Your task to perform on an android device: Clear the shopping cart on bestbuy. Search for asus rog on bestbuy, select the first entry, and add it to the cart. Image 0: 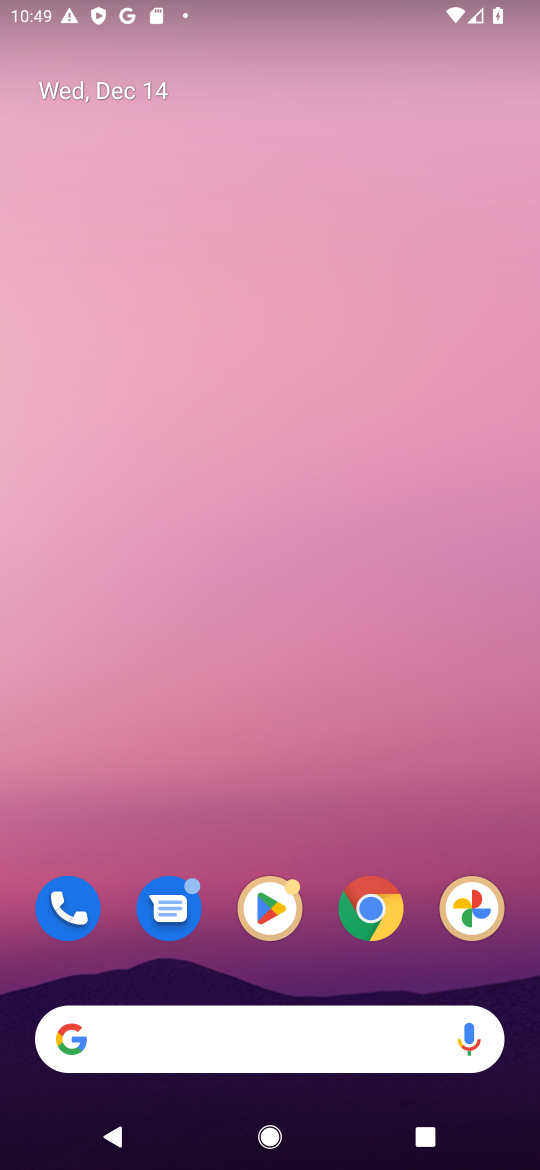
Step 0: click (364, 939)
Your task to perform on an android device: Clear the shopping cart on bestbuy. Search for asus rog on bestbuy, select the first entry, and add it to the cart. Image 1: 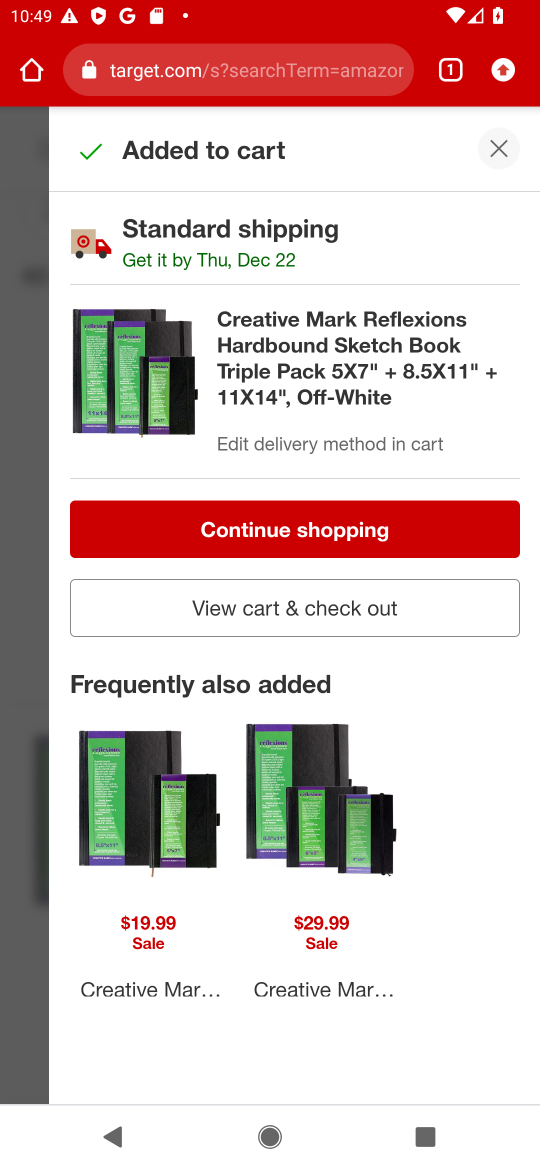
Step 1: click (198, 62)
Your task to perform on an android device: Clear the shopping cart on bestbuy. Search for asus rog on bestbuy, select the first entry, and add it to the cart. Image 2: 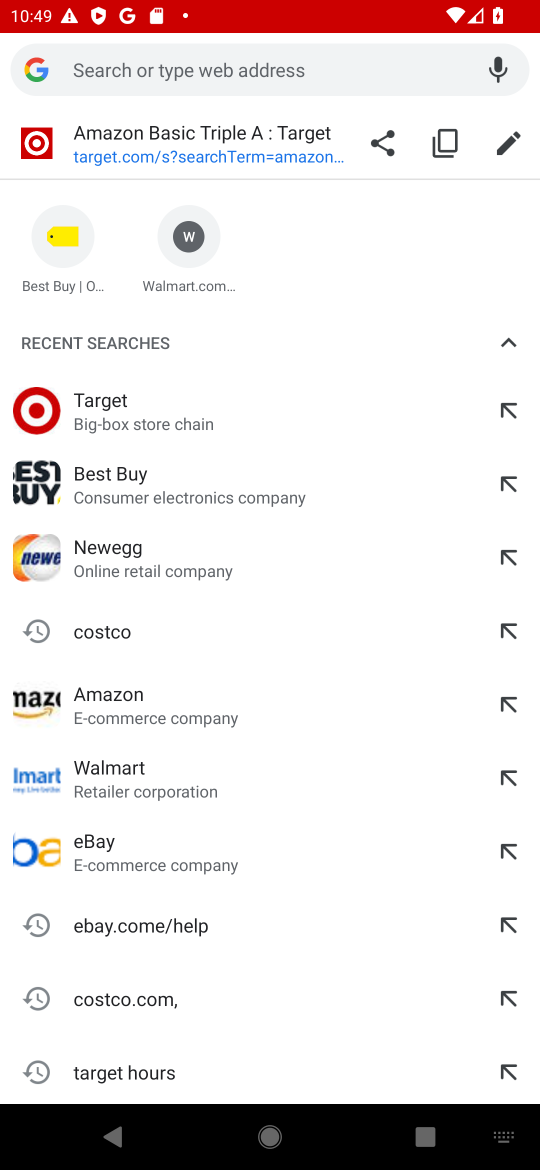
Step 2: type "bestbuy"
Your task to perform on an android device: Clear the shopping cart on bestbuy. Search for asus rog on bestbuy, select the first entry, and add it to the cart. Image 3: 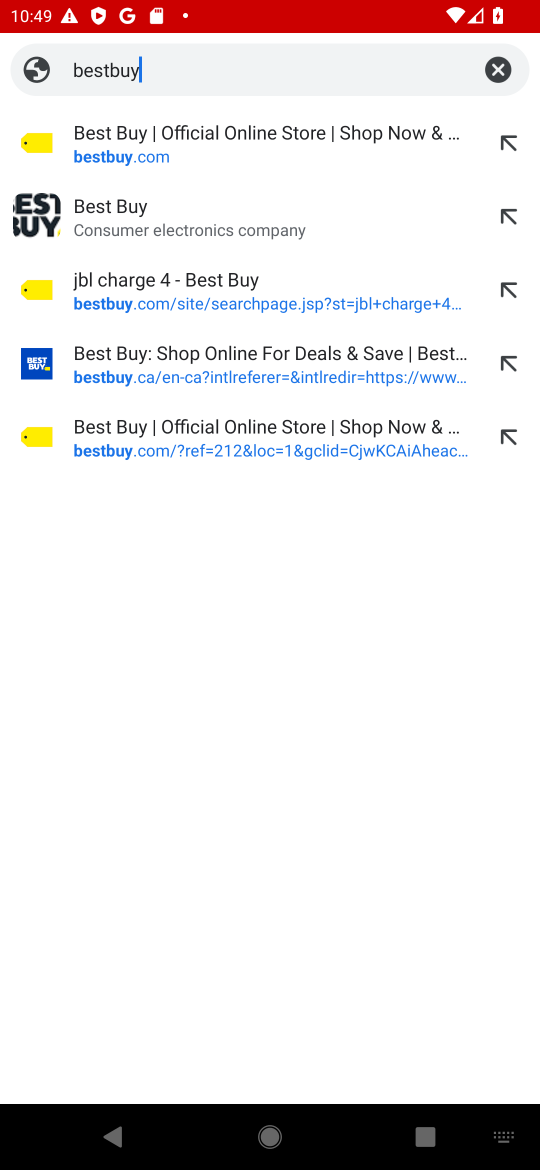
Step 3: click (143, 176)
Your task to perform on an android device: Clear the shopping cart on bestbuy. Search for asus rog on bestbuy, select the first entry, and add it to the cart. Image 4: 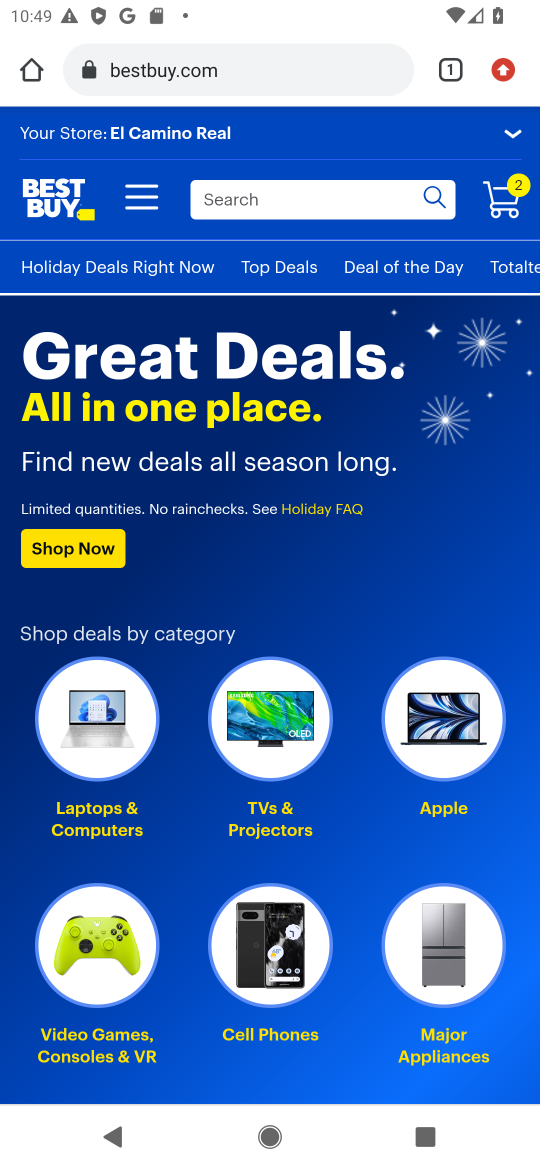
Step 4: click (287, 204)
Your task to perform on an android device: Clear the shopping cart on bestbuy. Search for asus rog on bestbuy, select the first entry, and add it to the cart. Image 5: 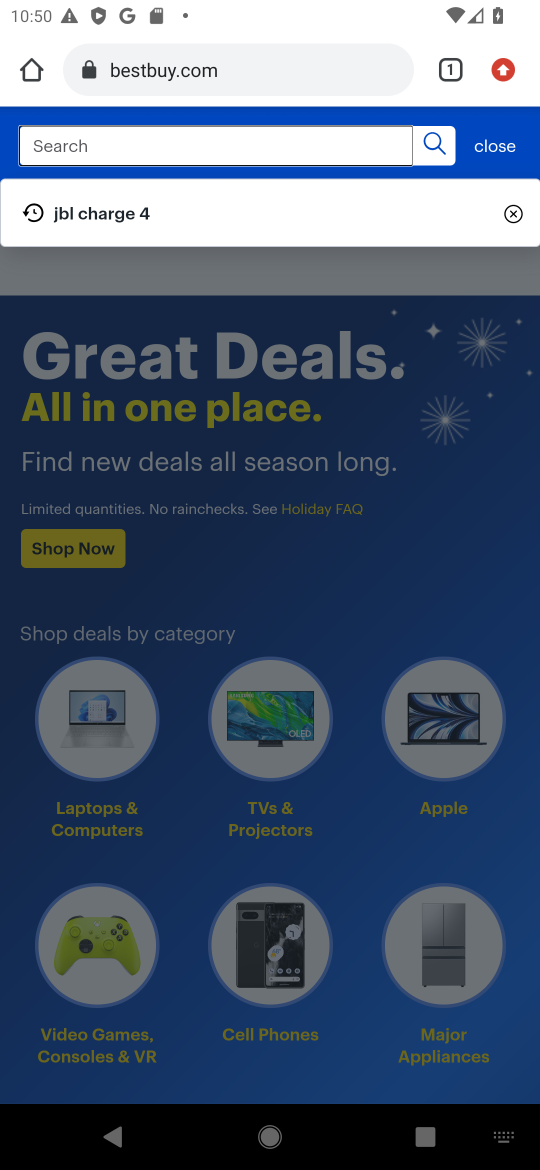
Step 5: type "asus rog "
Your task to perform on an android device: Clear the shopping cart on bestbuy. Search for asus rog on bestbuy, select the first entry, and add it to the cart. Image 6: 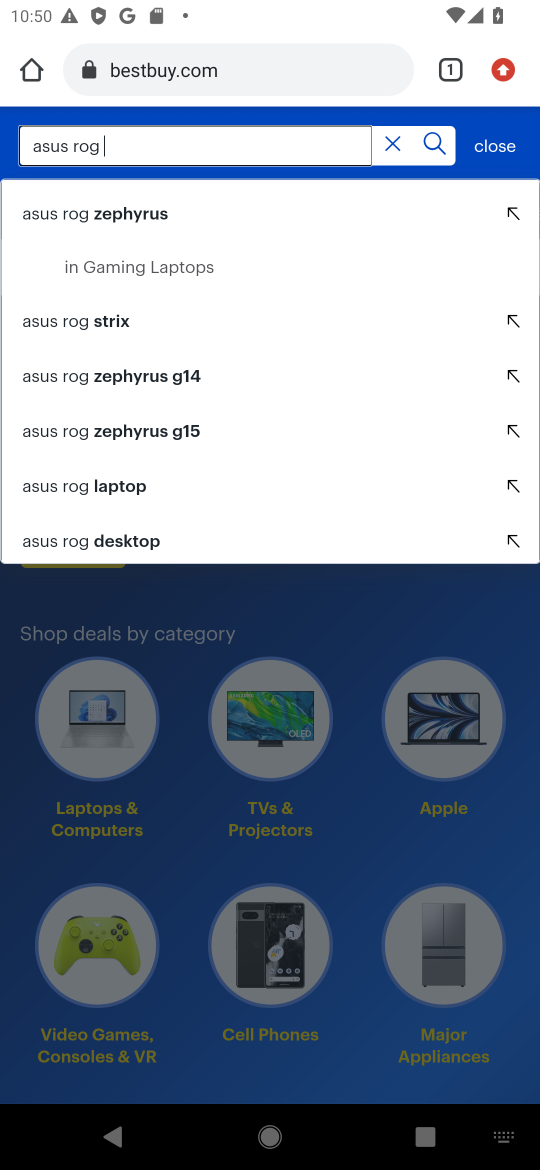
Step 6: click (431, 152)
Your task to perform on an android device: Clear the shopping cart on bestbuy. Search for asus rog on bestbuy, select the first entry, and add it to the cart. Image 7: 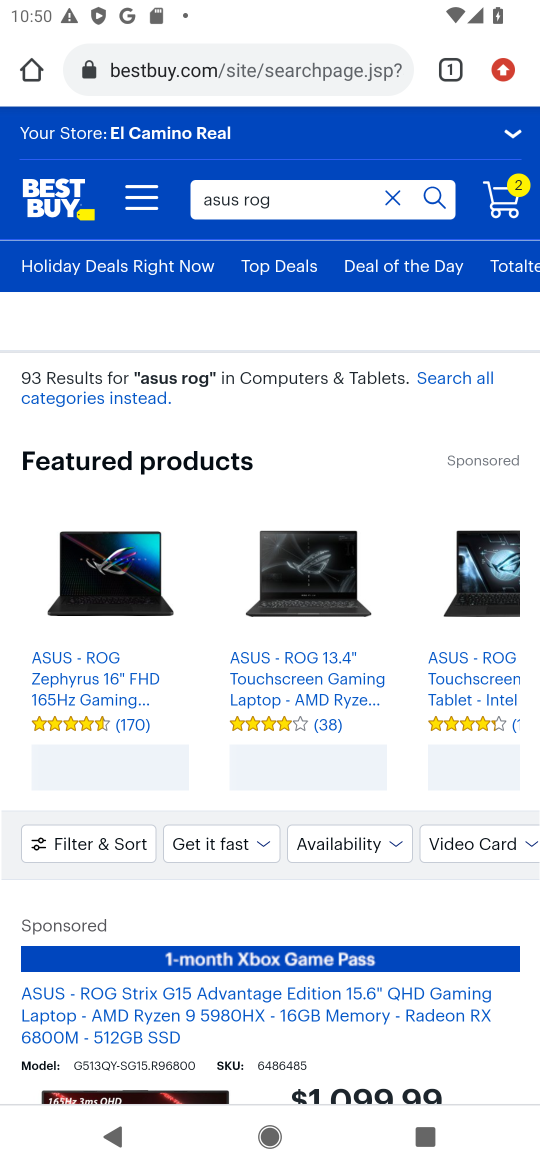
Step 7: click (126, 597)
Your task to perform on an android device: Clear the shopping cart on bestbuy. Search for asus rog on bestbuy, select the first entry, and add it to the cart. Image 8: 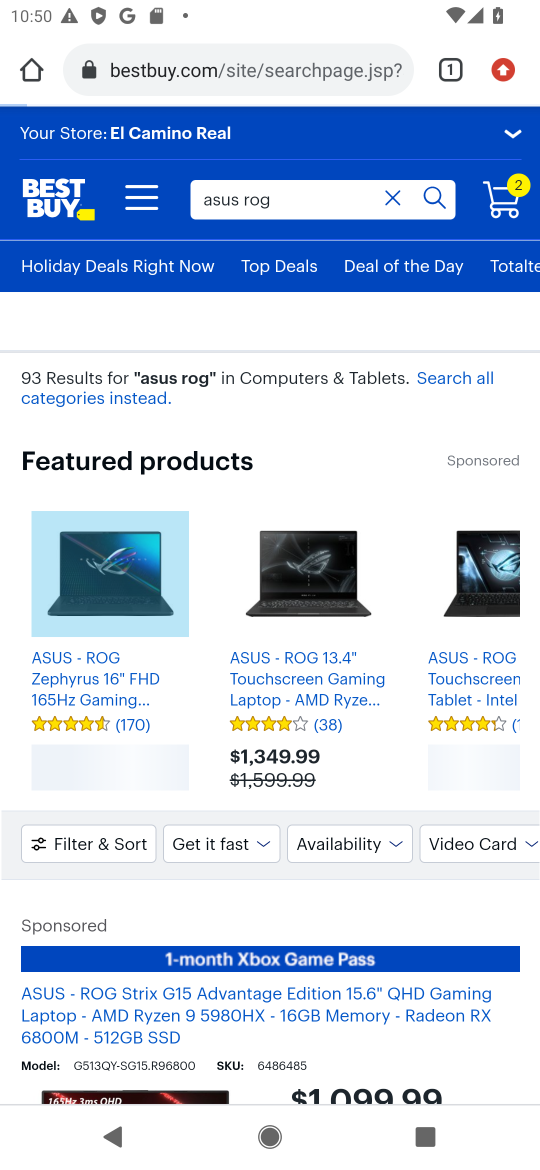
Step 8: task complete